Your task to perform on an android device: Open location settings Image 0: 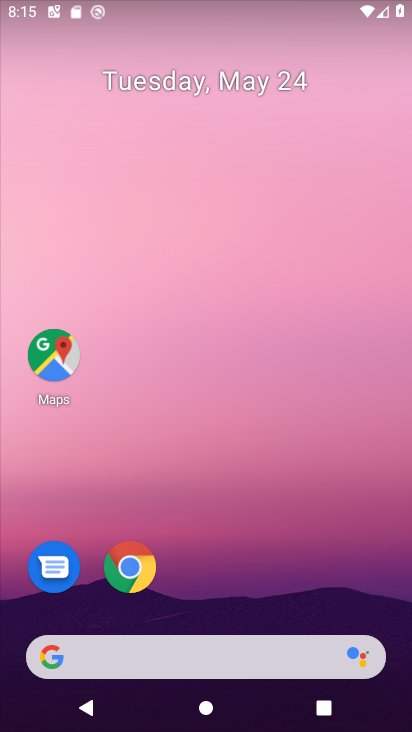
Step 0: drag from (272, 548) to (254, 17)
Your task to perform on an android device: Open location settings Image 1: 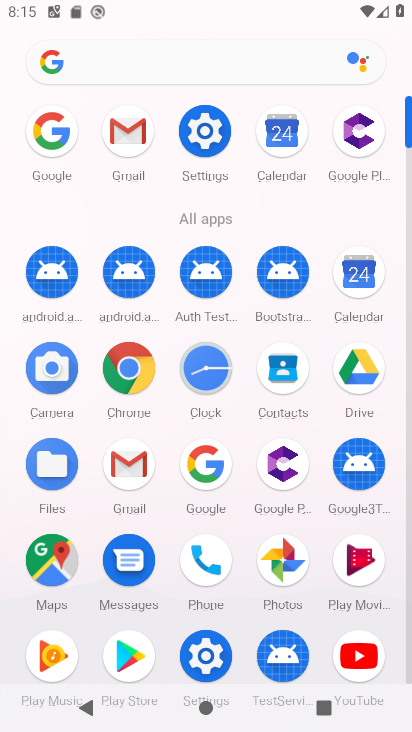
Step 1: click (203, 130)
Your task to perform on an android device: Open location settings Image 2: 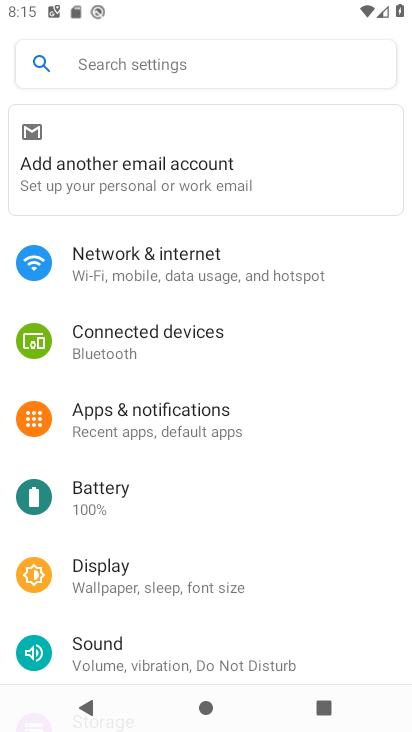
Step 2: drag from (255, 618) to (284, 102)
Your task to perform on an android device: Open location settings Image 3: 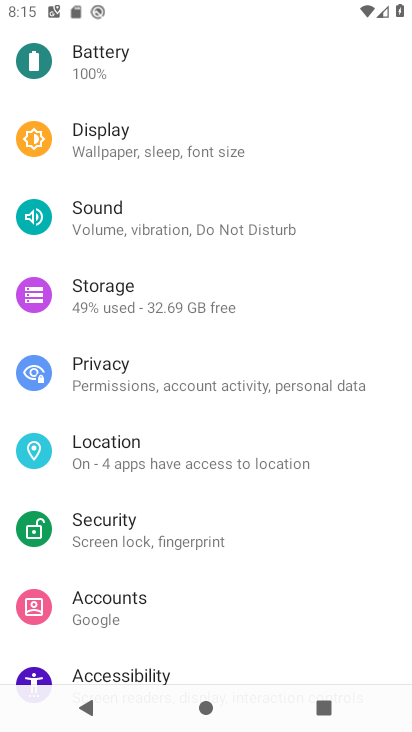
Step 3: click (222, 450)
Your task to perform on an android device: Open location settings Image 4: 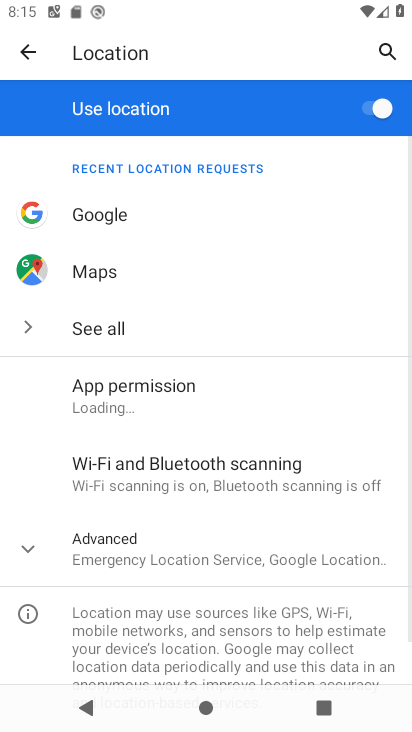
Step 4: task complete